Your task to perform on an android device: What's on my calendar today? Image 0: 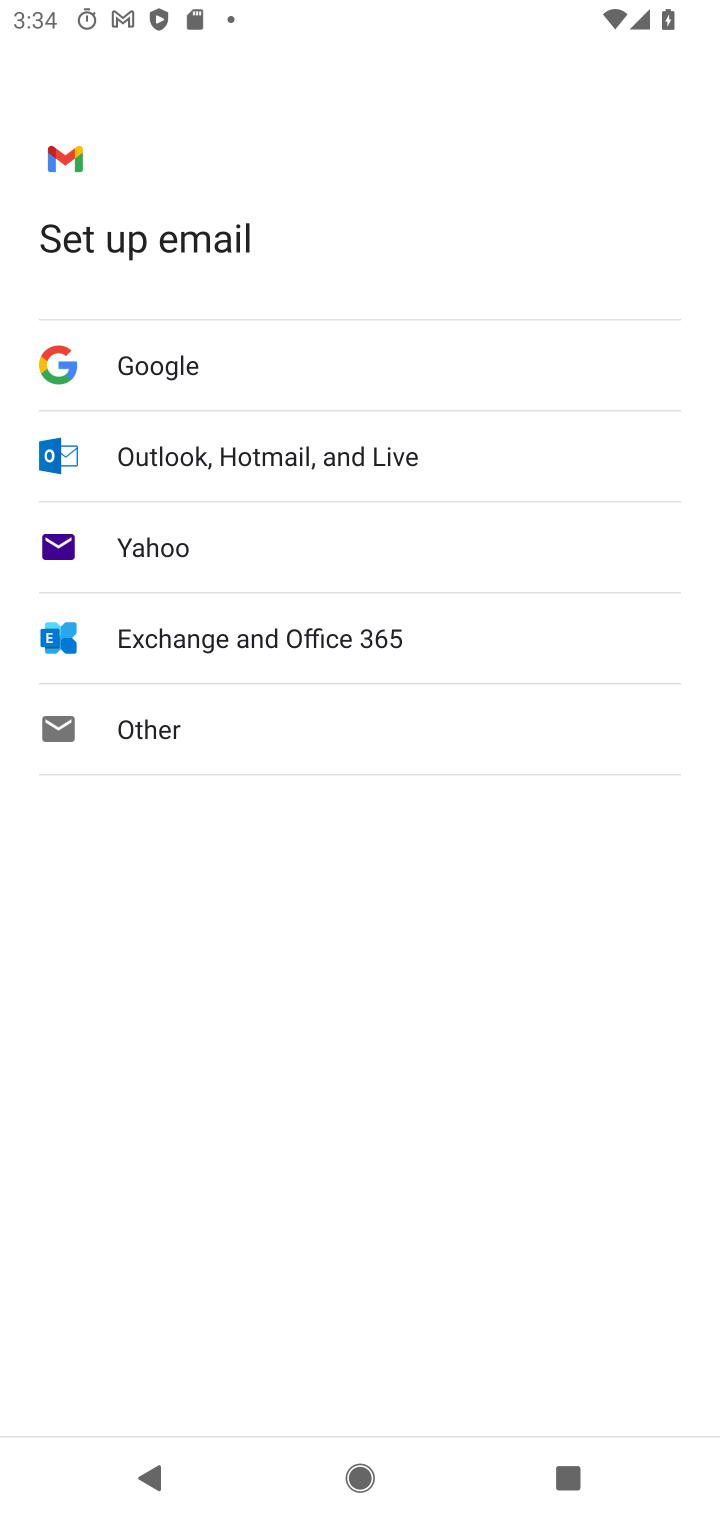
Step 0: press home button
Your task to perform on an android device: What's on my calendar today? Image 1: 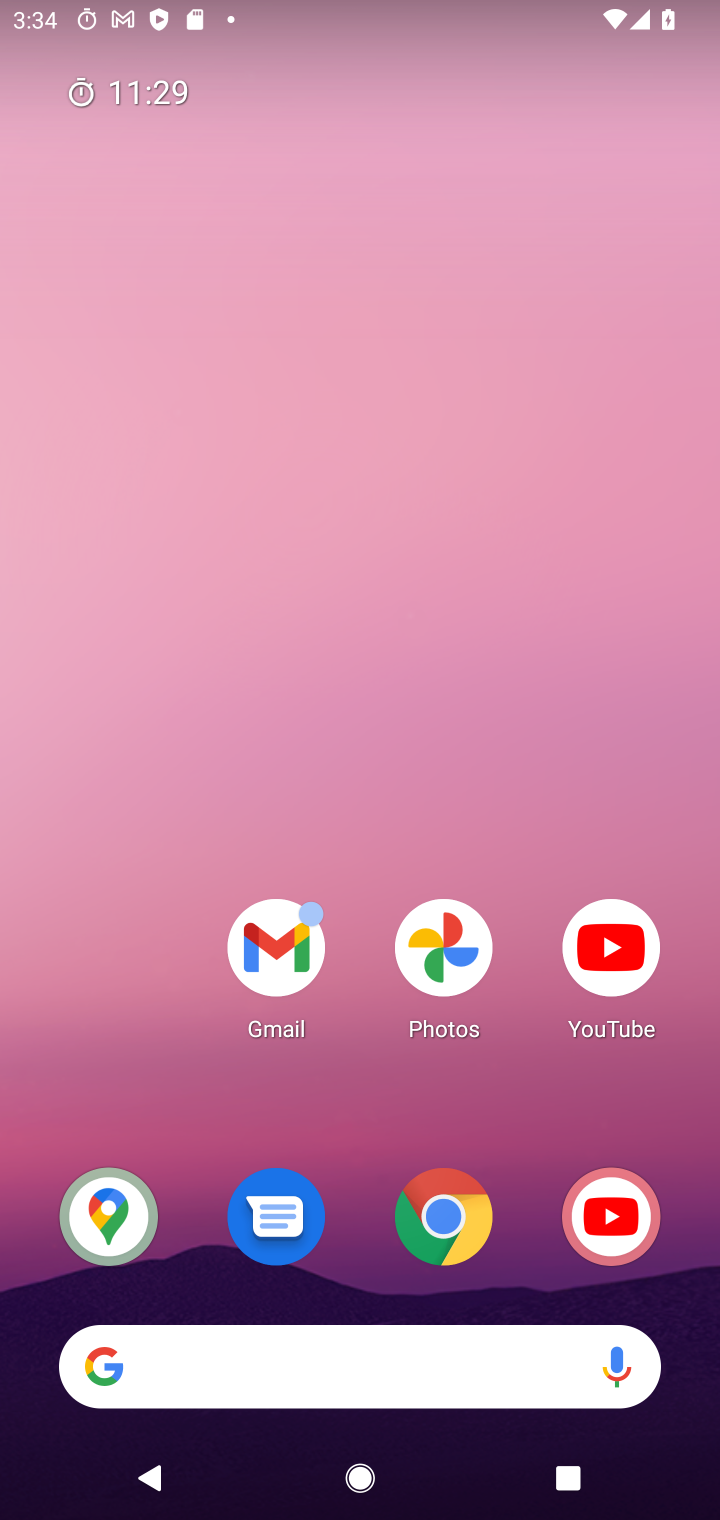
Step 1: drag from (118, 843) to (332, 436)
Your task to perform on an android device: What's on my calendar today? Image 2: 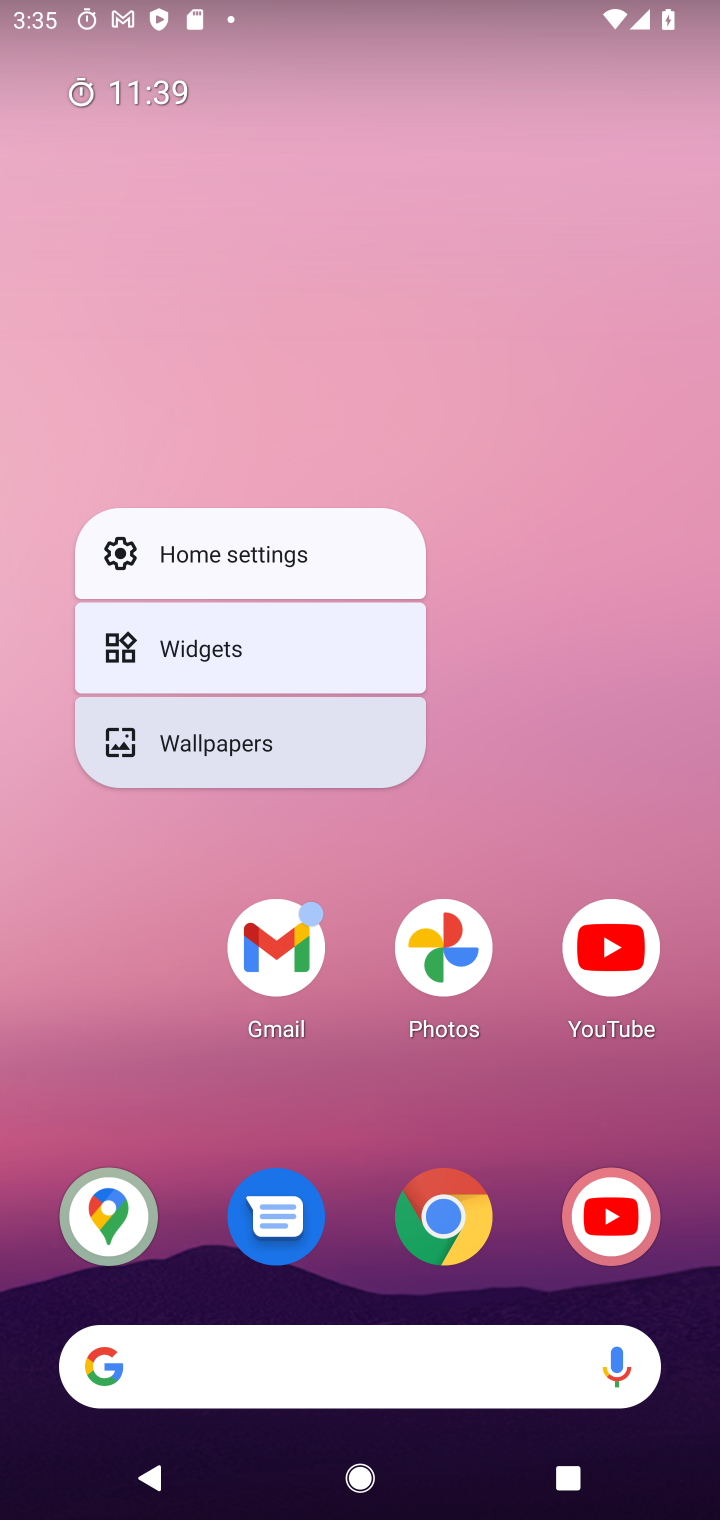
Step 2: click (502, 463)
Your task to perform on an android device: What's on my calendar today? Image 3: 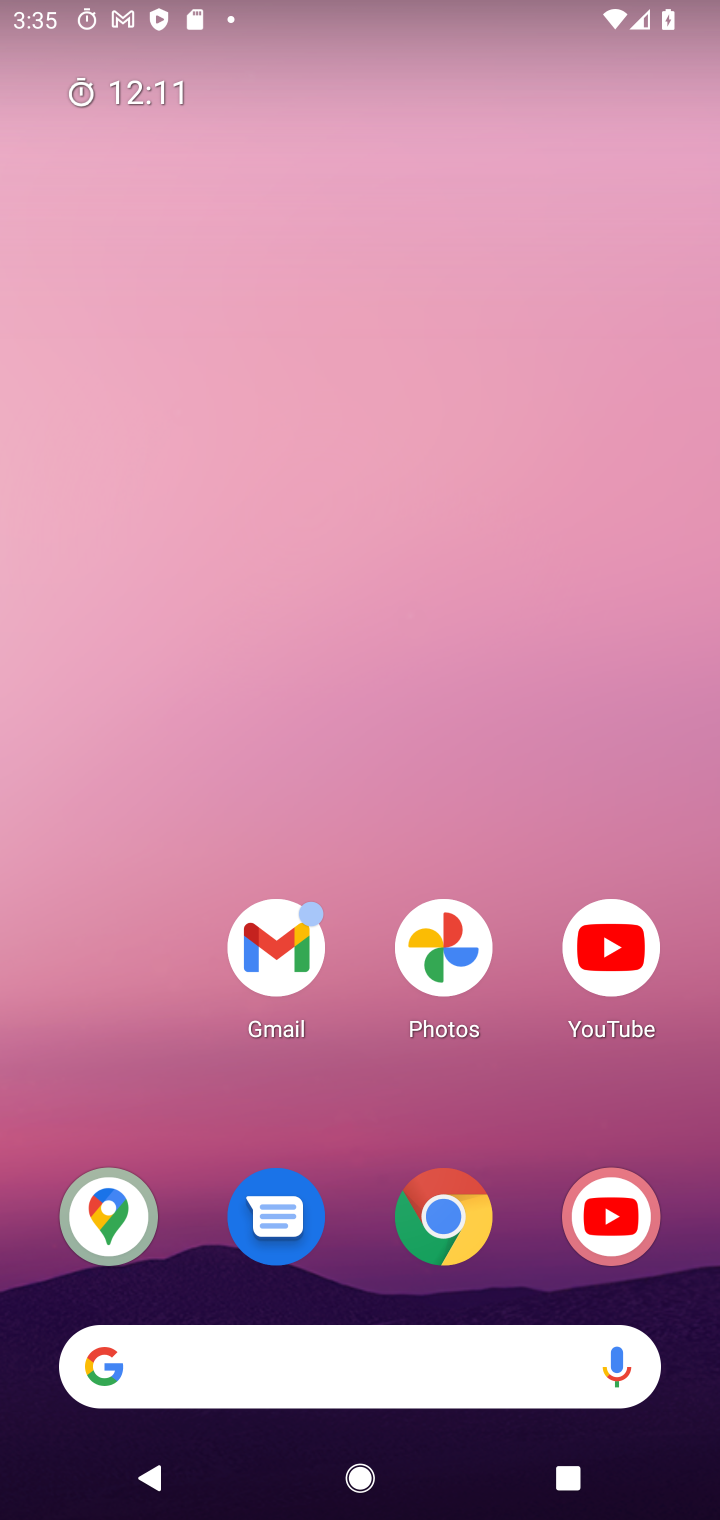
Step 3: drag from (286, 503) to (372, 152)
Your task to perform on an android device: What's on my calendar today? Image 4: 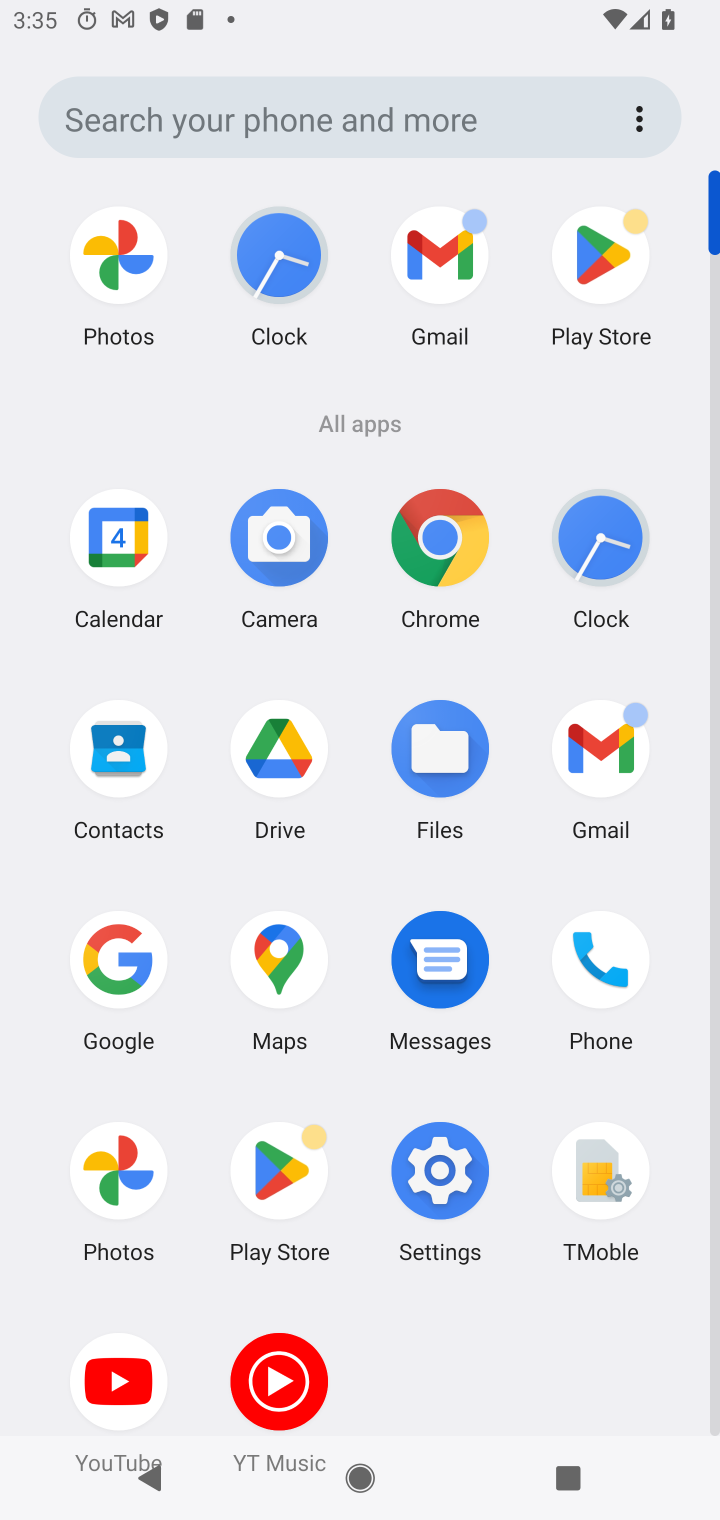
Step 4: click (122, 533)
Your task to perform on an android device: What's on my calendar today? Image 5: 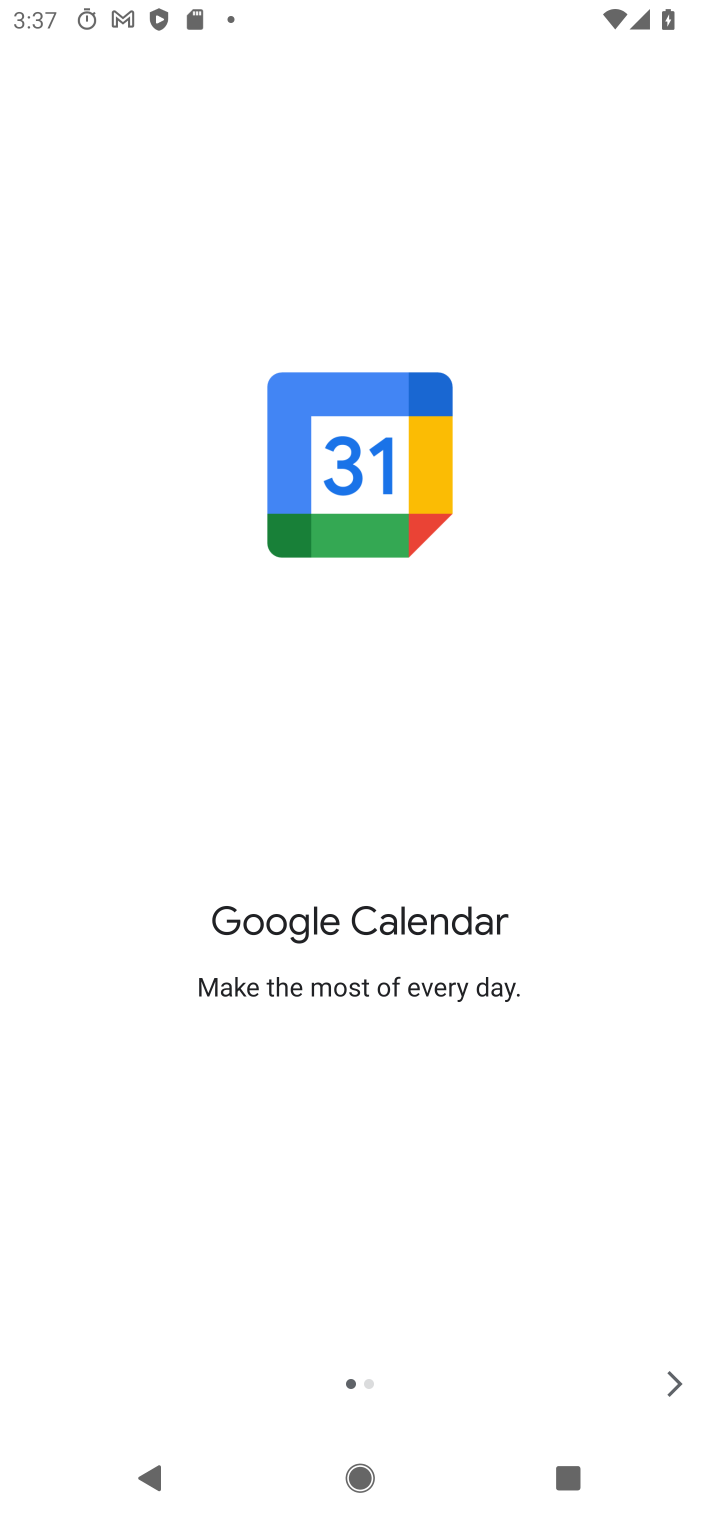
Step 5: click (673, 1371)
Your task to perform on an android device: What's on my calendar today? Image 6: 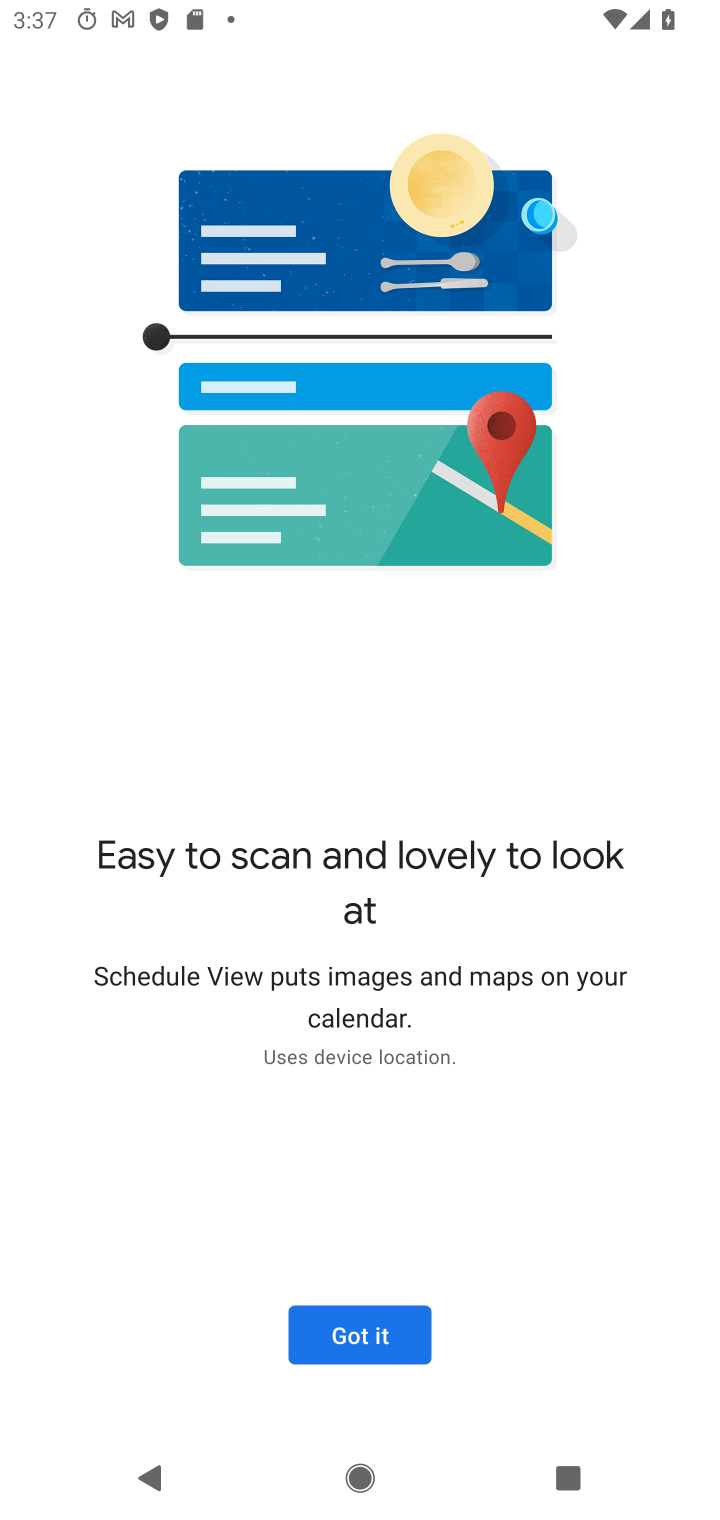
Step 6: click (674, 1372)
Your task to perform on an android device: What's on my calendar today? Image 7: 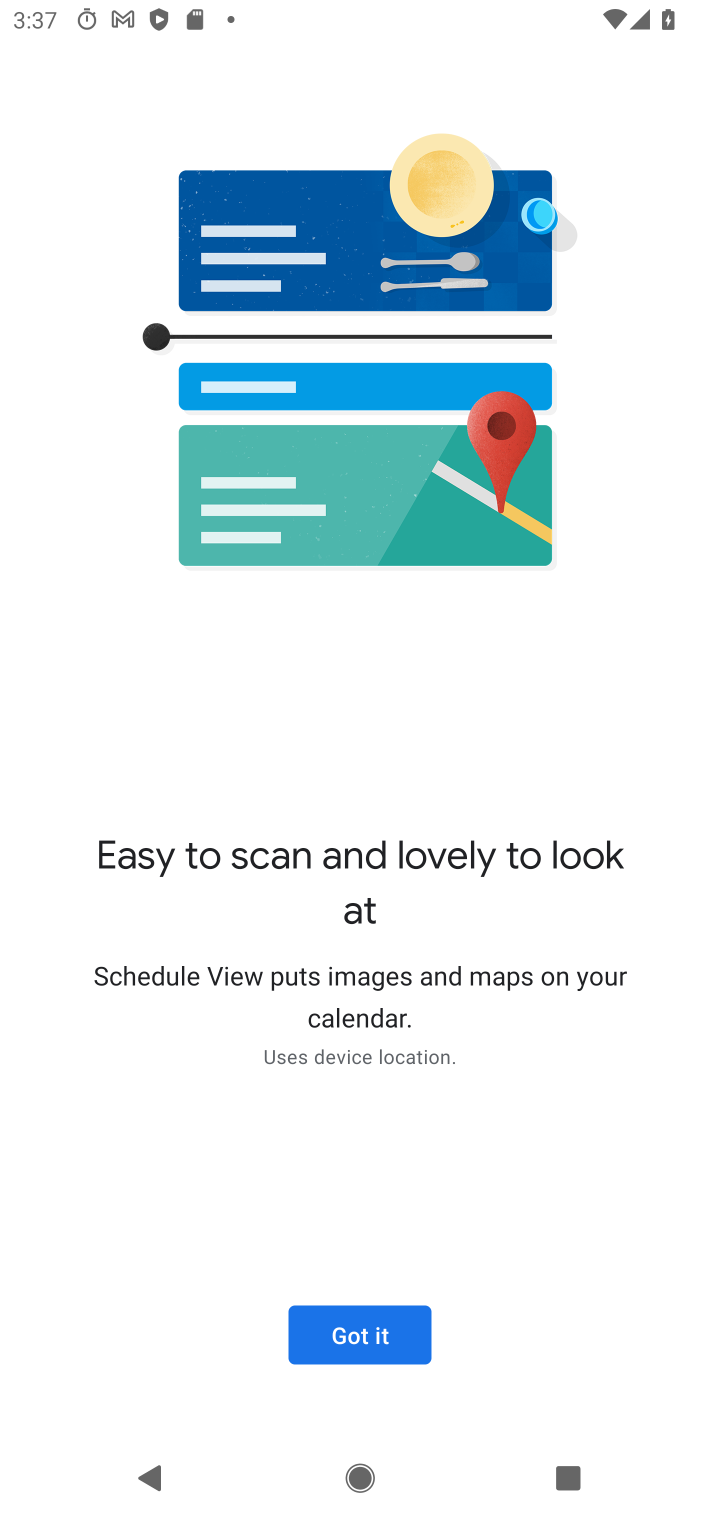
Step 7: click (373, 1330)
Your task to perform on an android device: What's on my calendar today? Image 8: 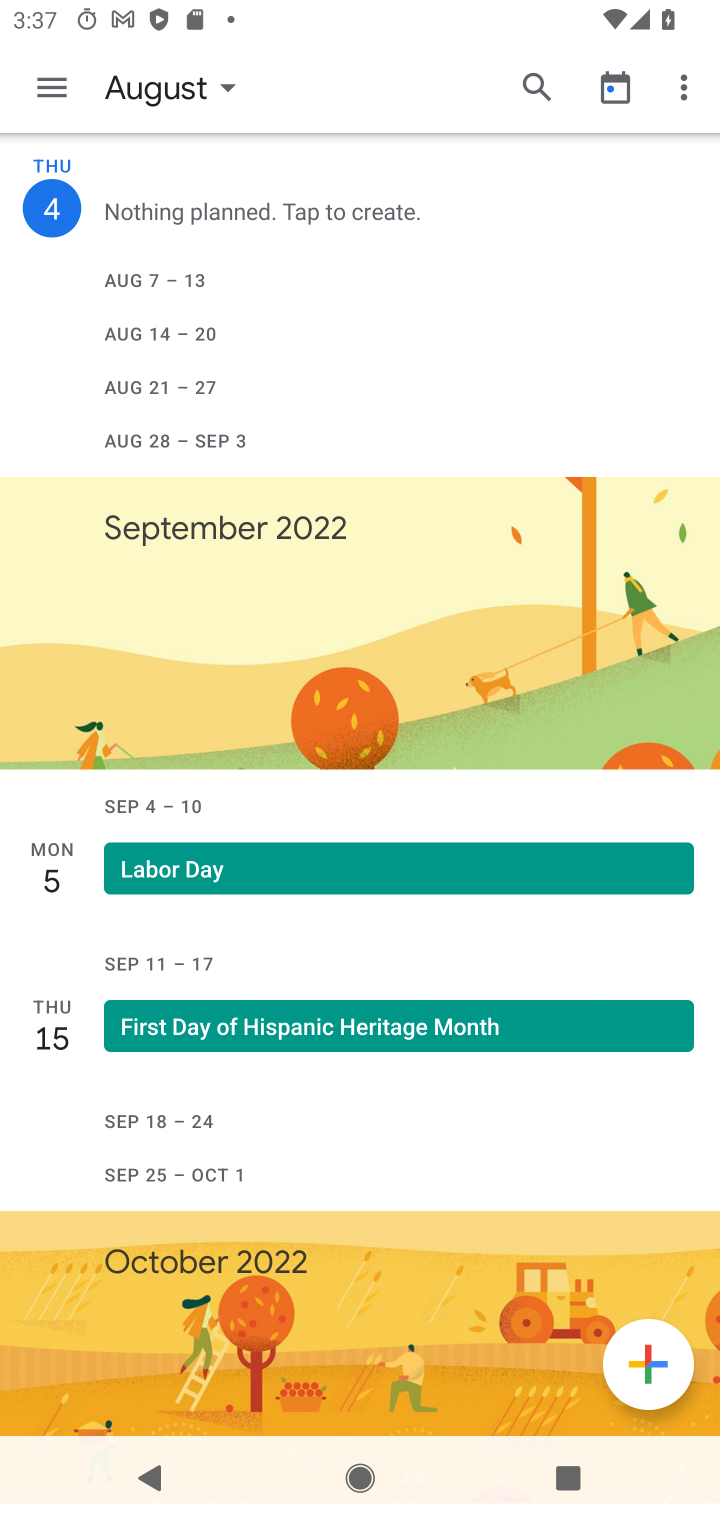
Step 8: click (141, 81)
Your task to perform on an android device: What's on my calendar today? Image 9: 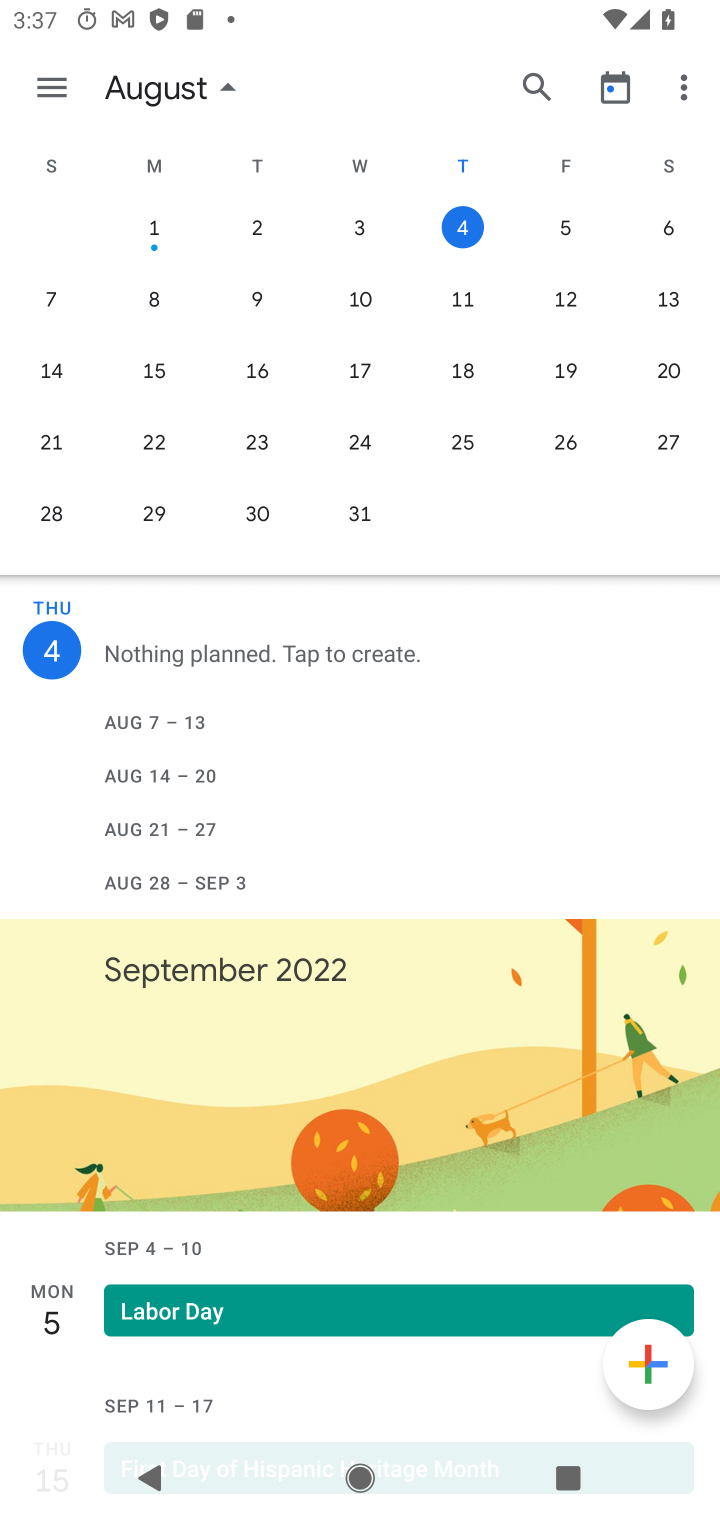
Step 9: click (470, 242)
Your task to perform on an android device: What's on my calendar today? Image 10: 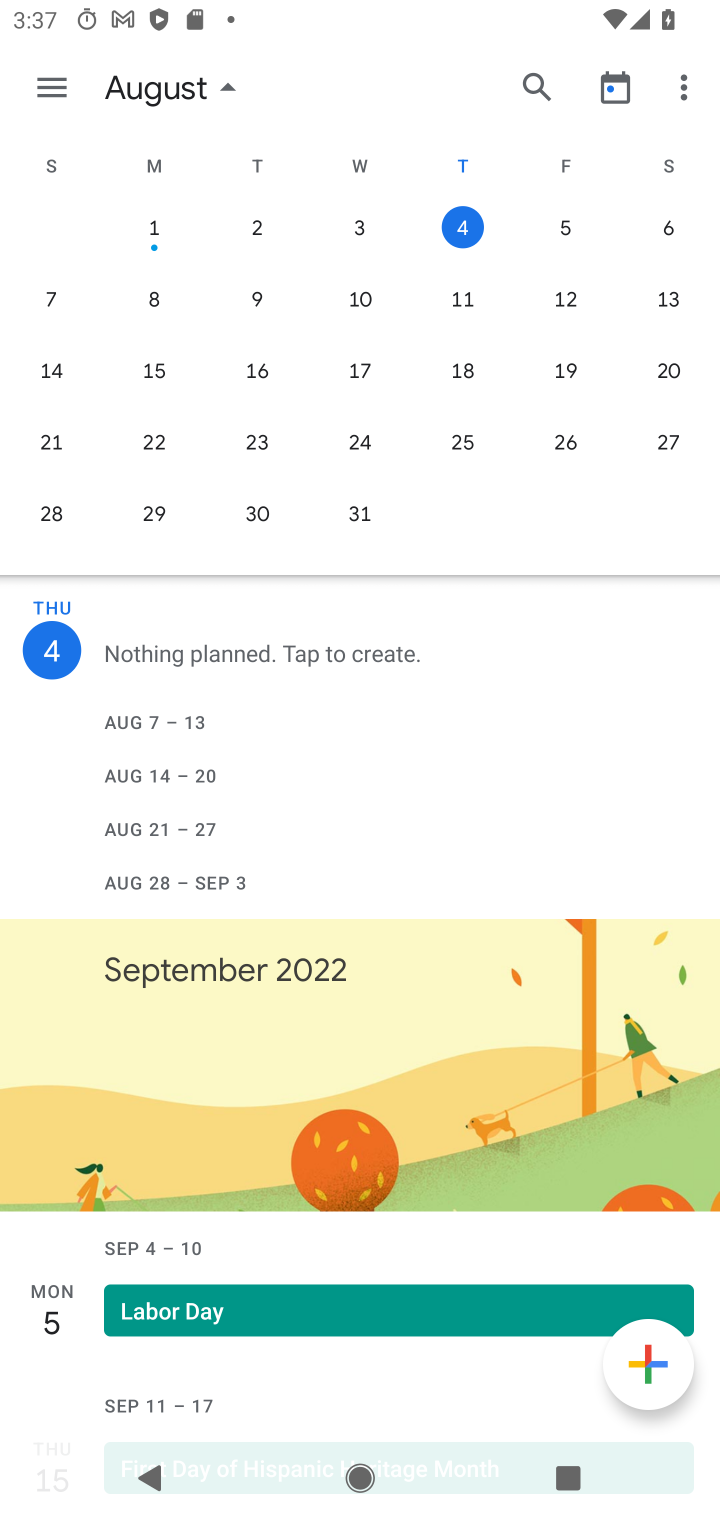
Step 10: task complete